Your task to perform on an android device: Show me recent news Image 0: 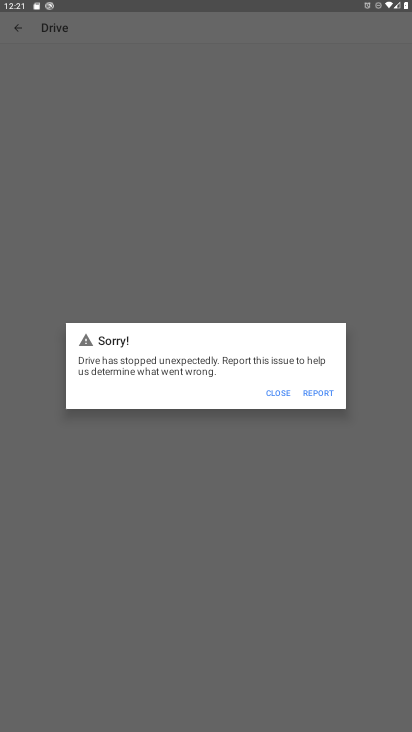
Step 0: press home button
Your task to perform on an android device: Show me recent news Image 1: 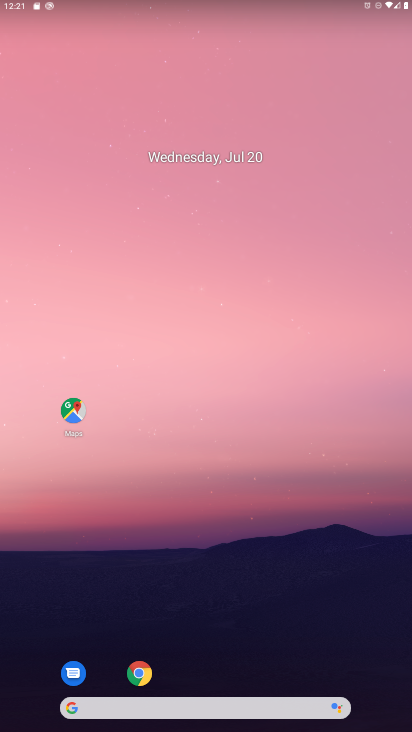
Step 1: drag from (209, 698) to (200, 376)
Your task to perform on an android device: Show me recent news Image 2: 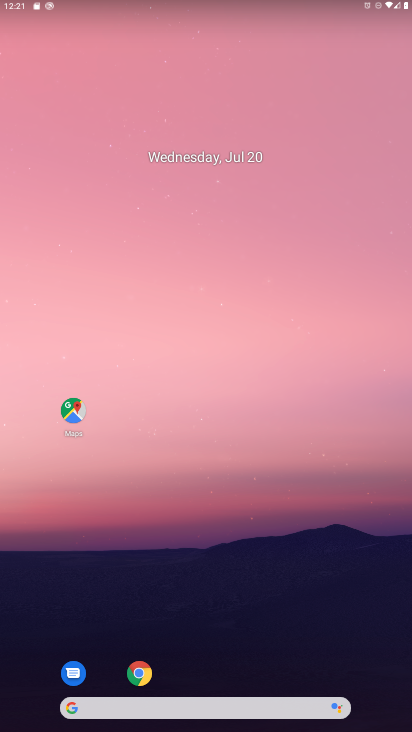
Step 2: click (136, 675)
Your task to perform on an android device: Show me recent news Image 3: 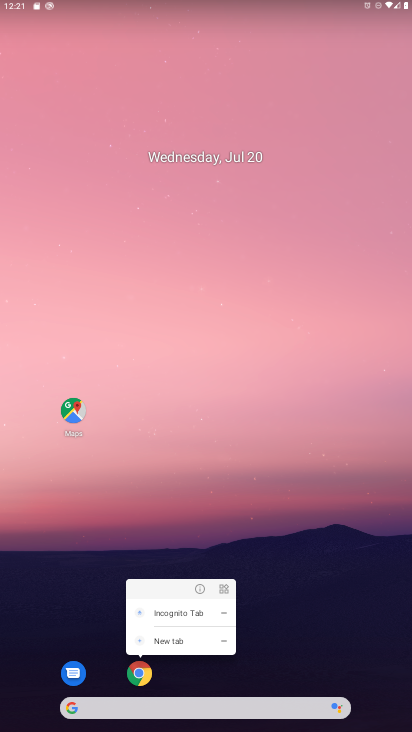
Step 3: click (151, 685)
Your task to perform on an android device: Show me recent news Image 4: 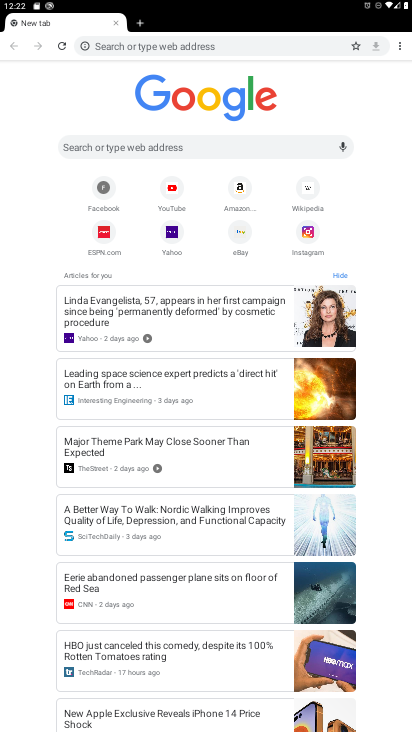
Step 4: click (180, 140)
Your task to perform on an android device: Show me recent news Image 5: 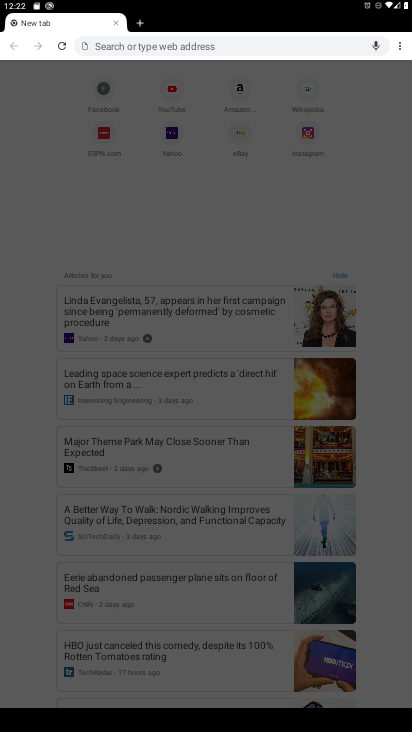
Step 5: type "recent news"
Your task to perform on an android device: Show me recent news Image 6: 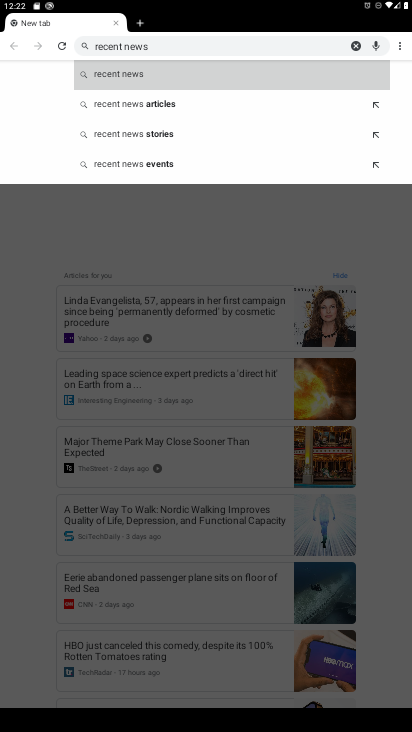
Step 6: click (141, 69)
Your task to perform on an android device: Show me recent news Image 7: 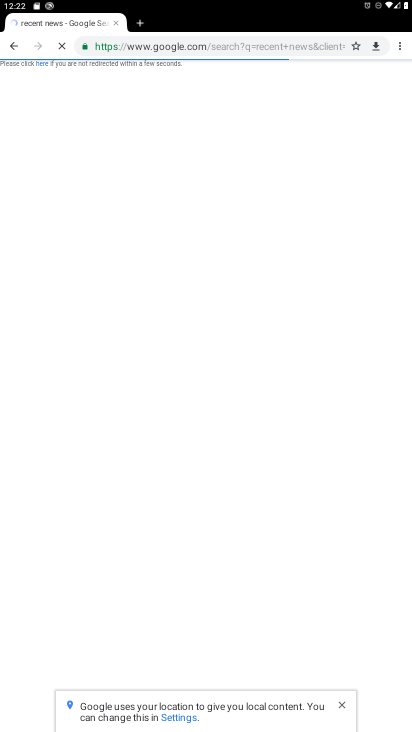
Step 7: task complete